Your task to perform on an android device: remove spam from my inbox in the gmail app Image 0: 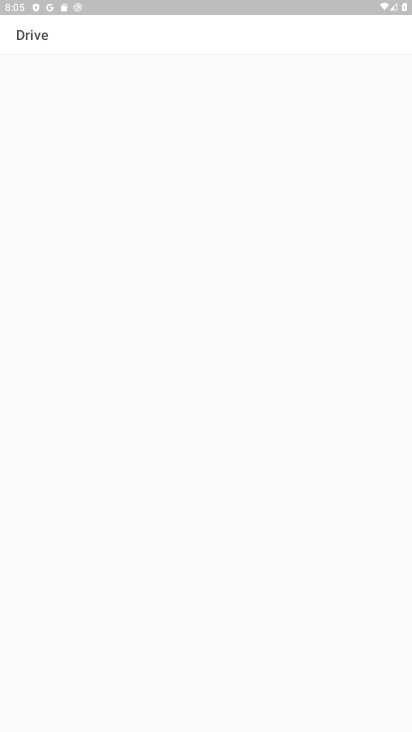
Step 0: press home button
Your task to perform on an android device: remove spam from my inbox in the gmail app Image 1: 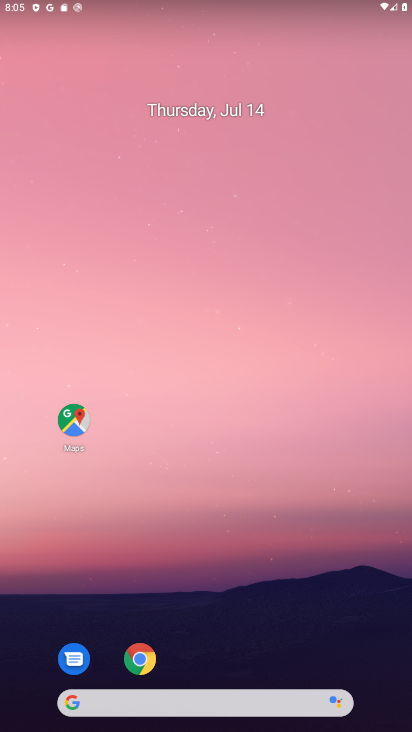
Step 1: drag from (255, 417) to (143, 17)
Your task to perform on an android device: remove spam from my inbox in the gmail app Image 2: 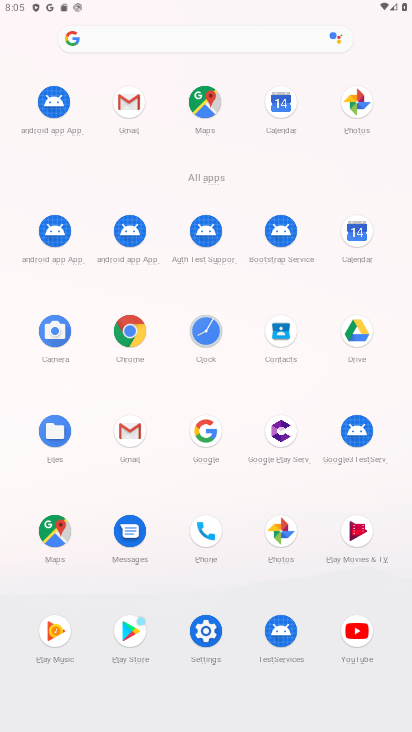
Step 2: click (129, 113)
Your task to perform on an android device: remove spam from my inbox in the gmail app Image 3: 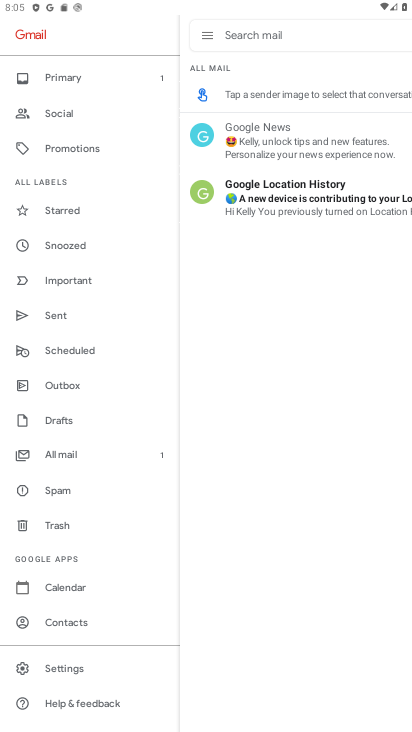
Step 3: click (72, 494)
Your task to perform on an android device: remove spam from my inbox in the gmail app Image 4: 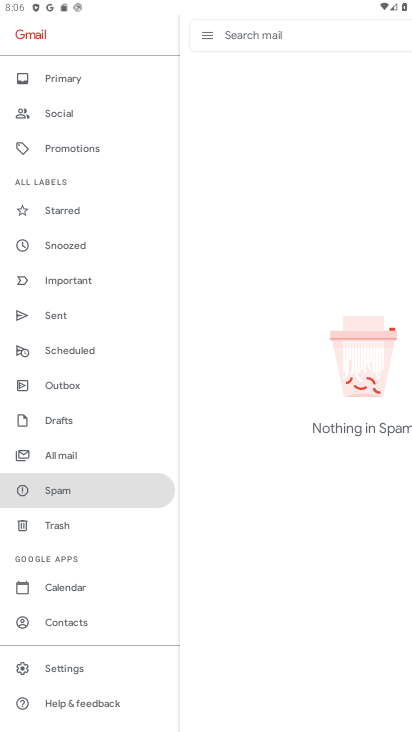
Step 4: task complete